Your task to perform on an android device: toggle wifi Image 0: 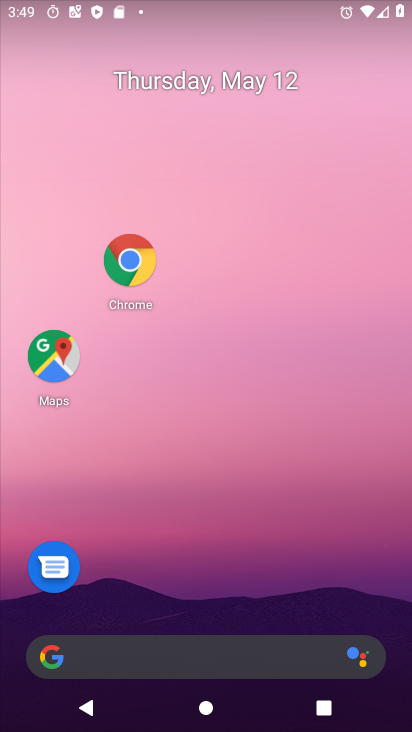
Step 0: drag from (226, 630) to (226, 230)
Your task to perform on an android device: toggle wifi Image 1: 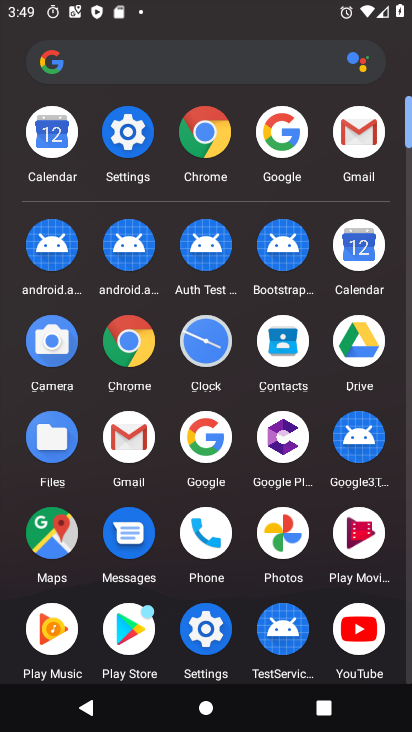
Step 1: click (123, 134)
Your task to perform on an android device: toggle wifi Image 2: 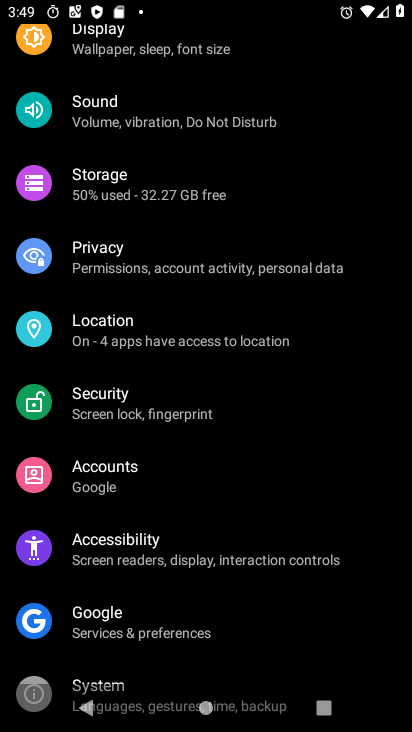
Step 2: drag from (193, 105) to (254, 574)
Your task to perform on an android device: toggle wifi Image 3: 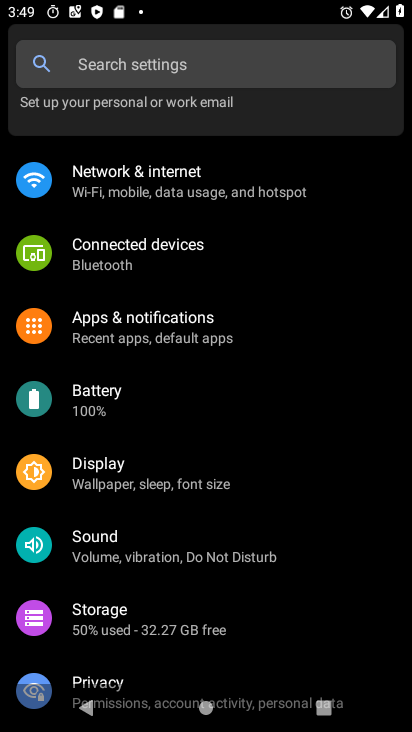
Step 3: click (168, 194)
Your task to perform on an android device: toggle wifi Image 4: 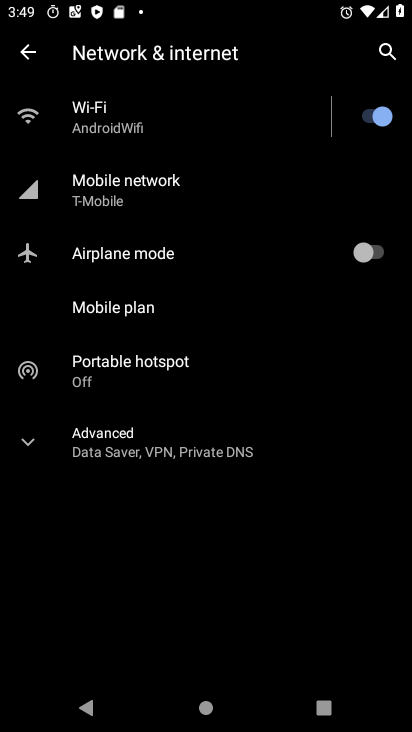
Step 4: click (370, 116)
Your task to perform on an android device: toggle wifi Image 5: 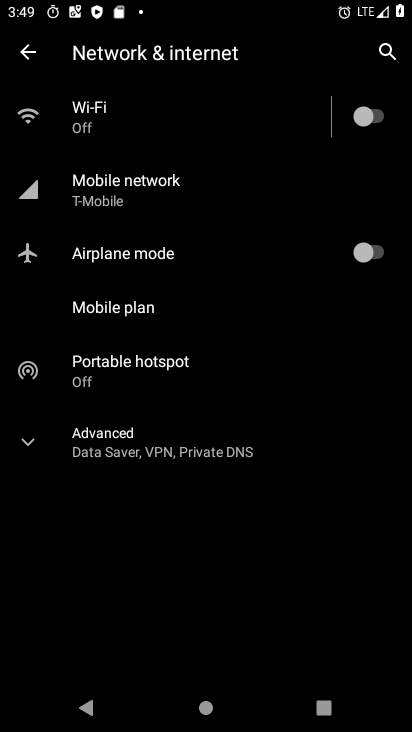
Step 5: task complete